Your task to perform on an android device: change the clock display to show seconds Image 0: 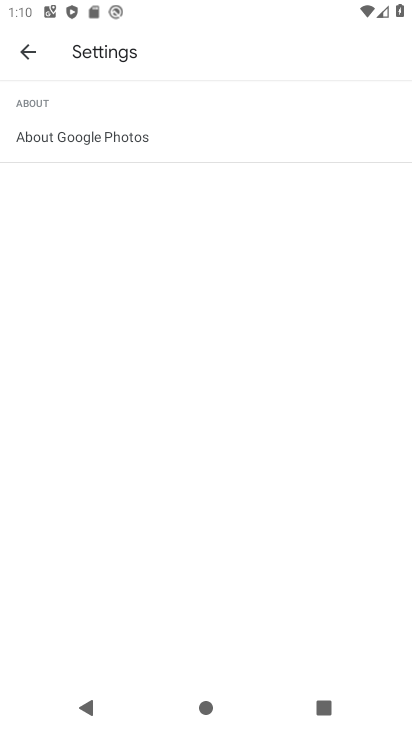
Step 0: press home button
Your task to perform on an android device: change the clock display to show seconds Image 1: 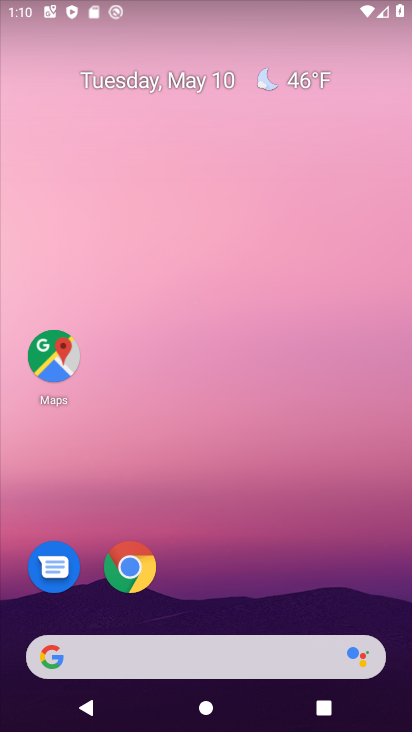
Step 1: drag from (213, 584) to (217, 146)
Your task to perform on an android device: change the clock display to show seconds Image 2: 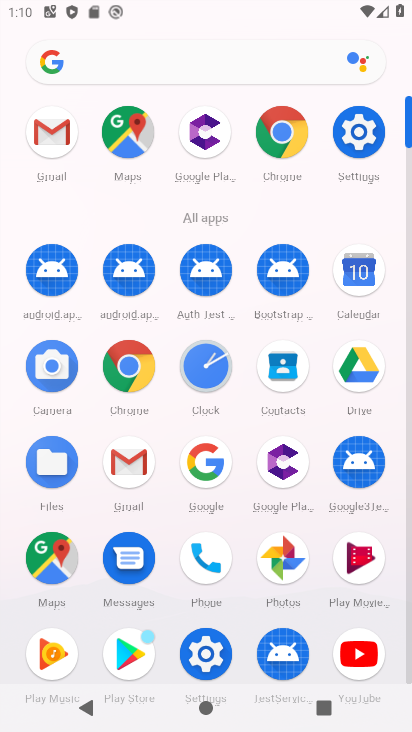
Step 2: click (199, 383)
Your task to perform on an android device: change the clock display to show seconds Image 3: 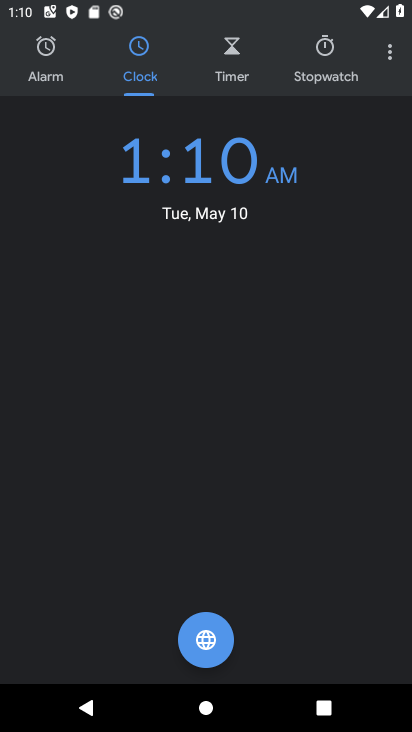
Step 3: click (391, 62)
Your task to perform on an android device: change the clock display to show seconds Image 4: 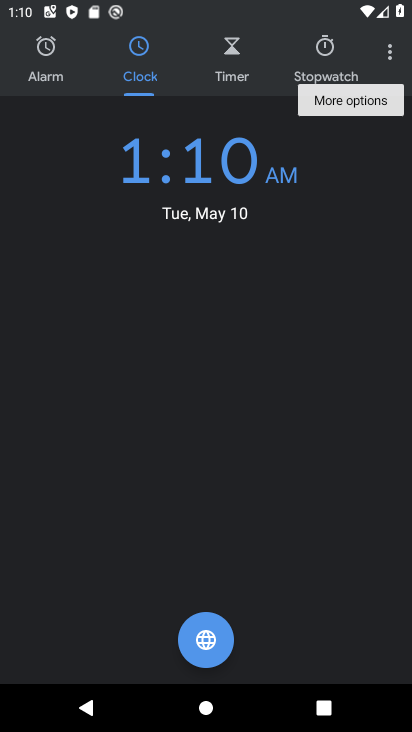
Step 4: click (383, 63)
Your task to perform on an android device: change the clock display to show seconds Image 5: 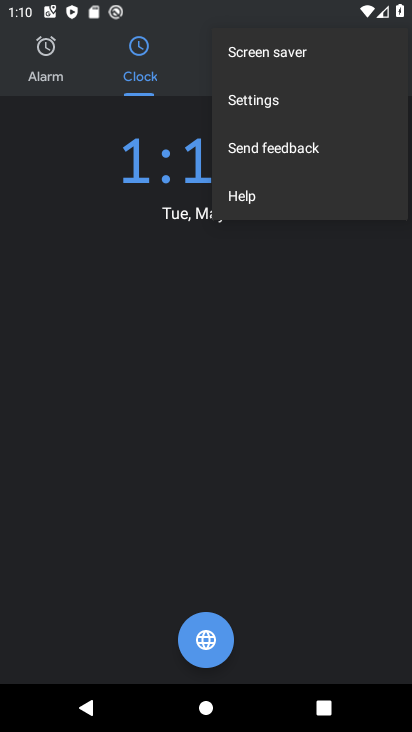
Step 5: click (282, 107)
Your task to perform on an android device: change the clock display to show seconds Image 6: 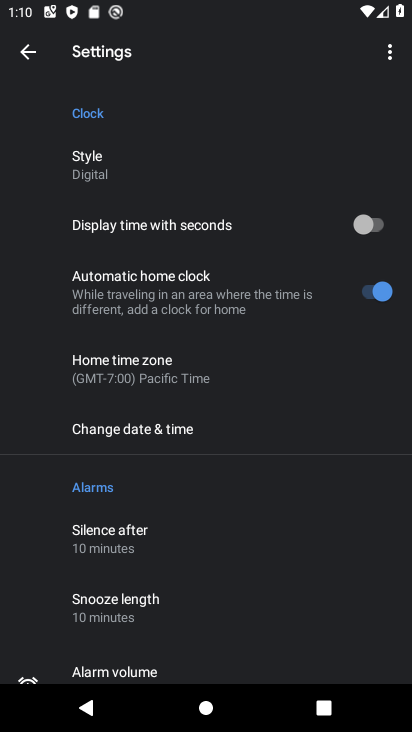
Step 6: click (359, 227)
Your task to perform on an android device: change the clock display to show seconds Image 7: 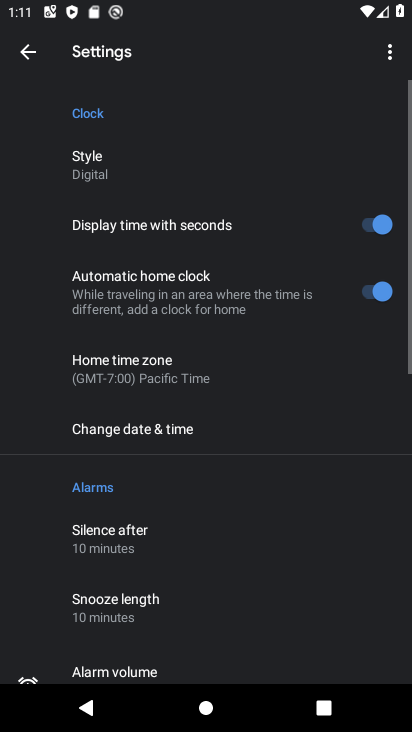
Step 7: task complete